Your task to perform on an android device: all mails in gmail Image 0: 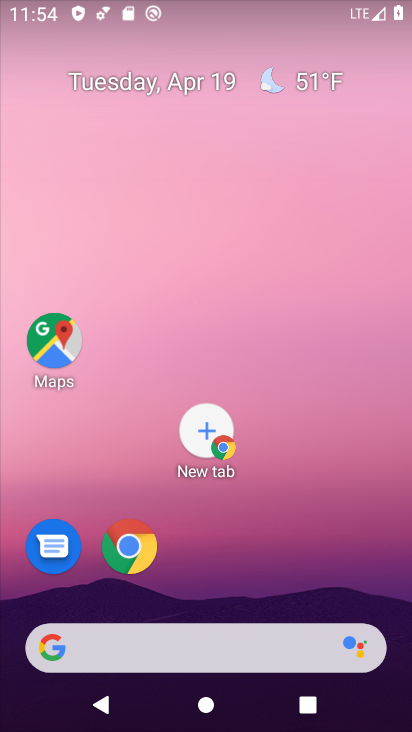
Step 0: drag from (251, 603) to (215, 13)
Your task to perform on an android device: all mails in gmail Image 1: 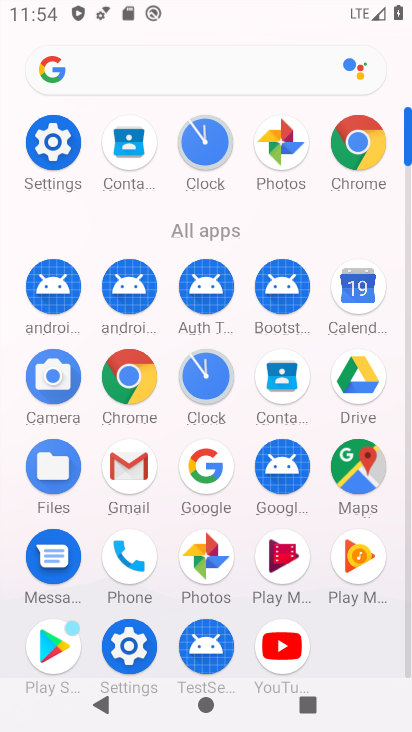
Step 1: click (122, 457)
Your task to perform on an android device: all mails in gmail Image 2: 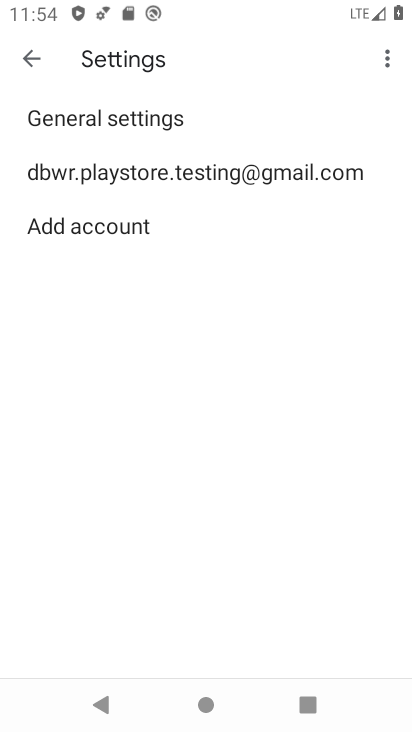
Step 2: press back button
Your task to perform on an android device: all mails in gmail Image 3: 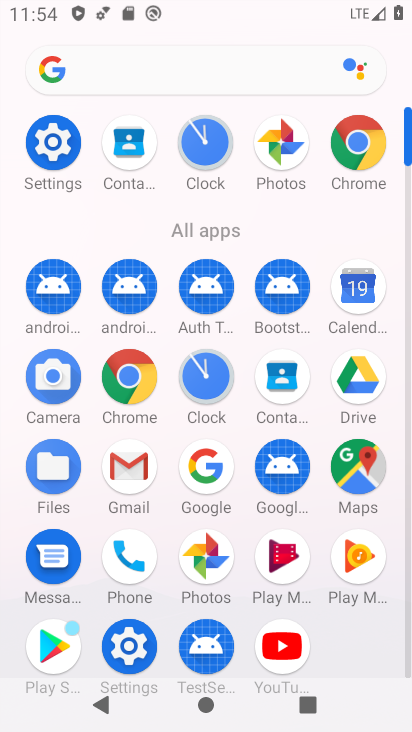
Step 3: click (134, 458)
Your task to perform on an android device: all mails in gmail Image 4: 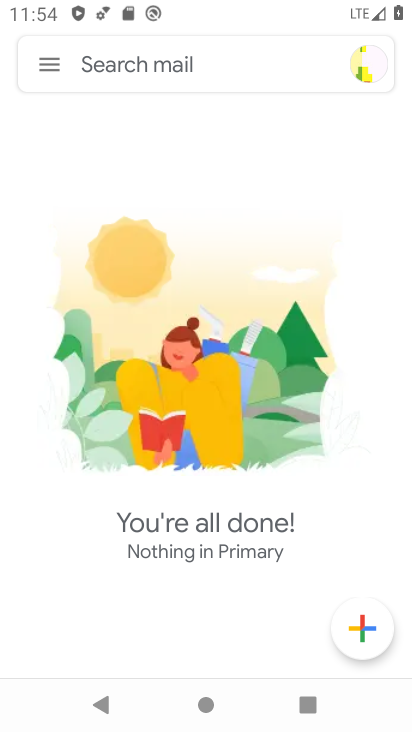
Step 4: click (68, 61)
Your task to perform on an android device: all mails in gmail Image 5: 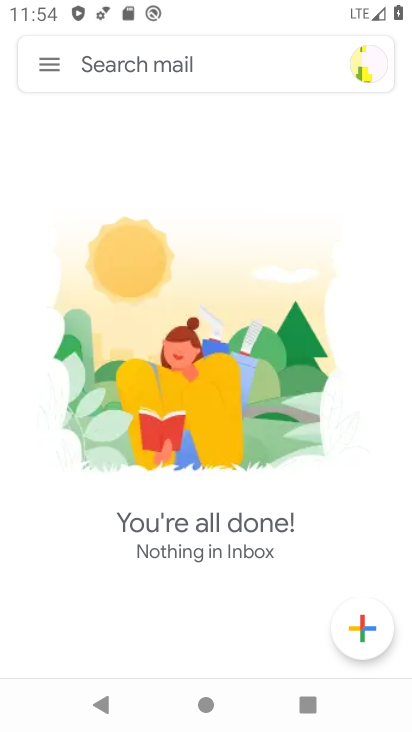
Step 5: click (52, 63)
Your task to perform on an android device: all mails in gmail Image 6: 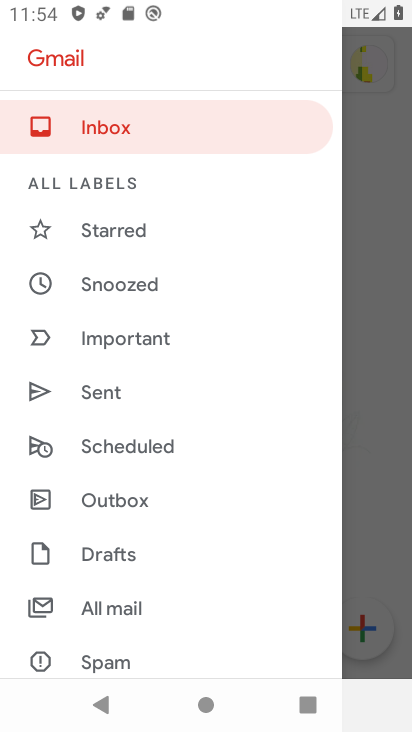
Step 6: click (135, 622)
Your task to perform on an android device: all mails in gmail Image 7: 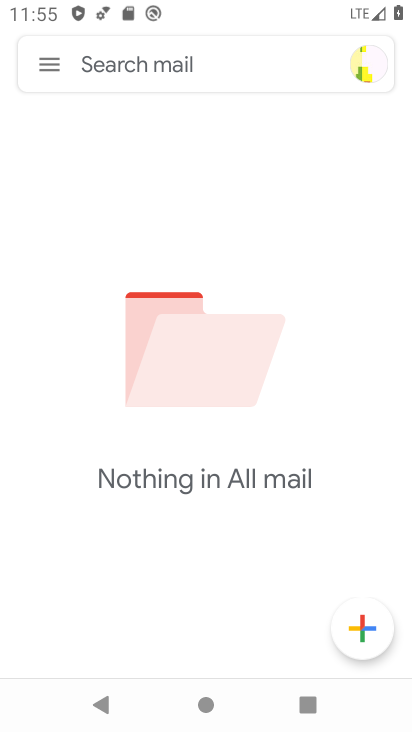
Step 7: task complete